Your task to perform on an android device: Go to battery settings Image 0: 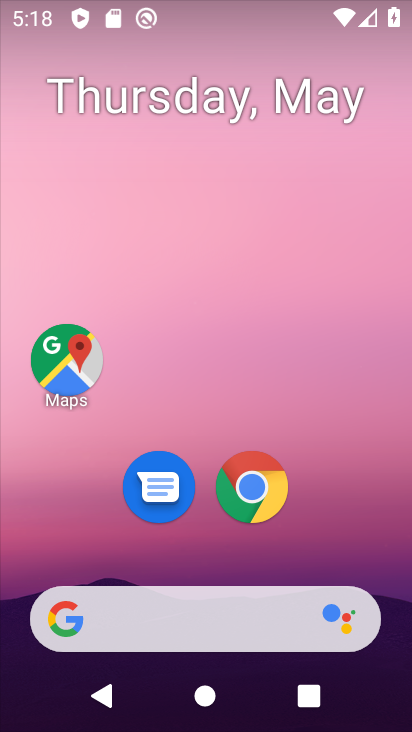
Step 0: drag from (327, 501) to (246, 45)
Your task to perform on an android device: Go to battery settings Image 1: 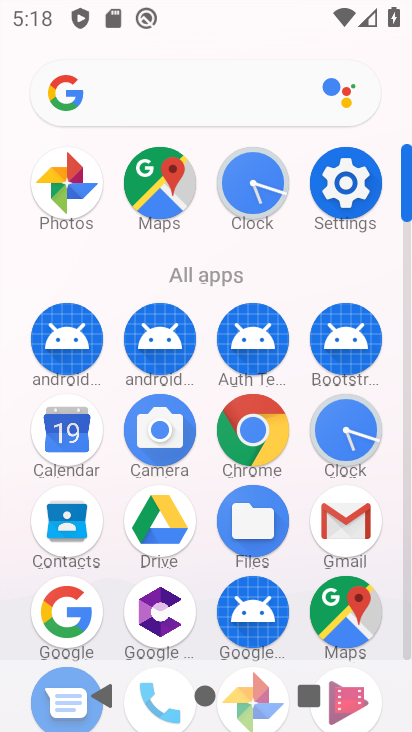
Step 1: click (346, 189)
Your task to perform on an android device: Go to battery settings Image 2: 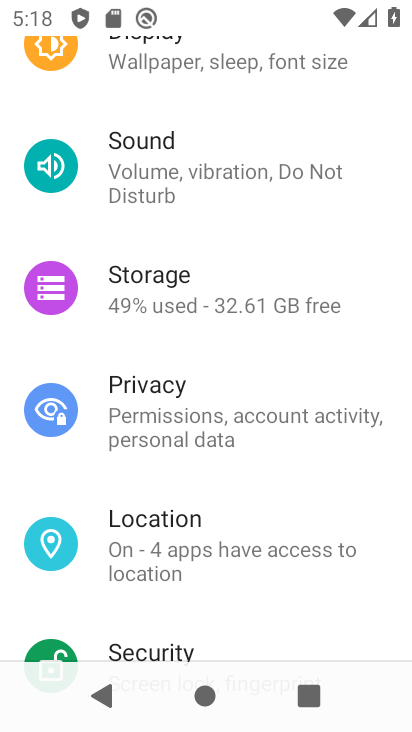
Step 2: drag from (243, 249) to (232, 571)
Your task to perform on an android device: Go to battery settings Image 3: 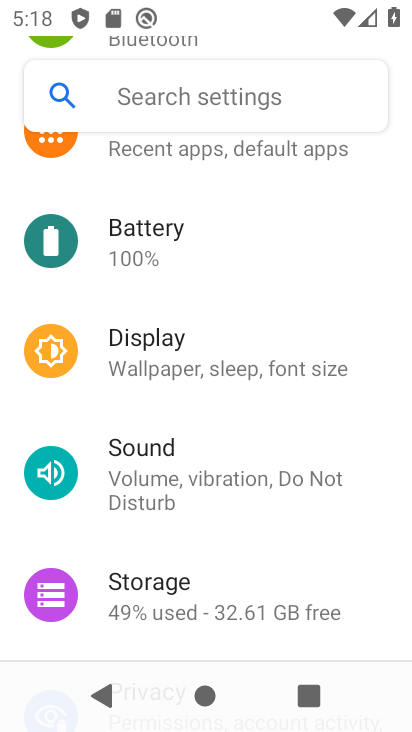
Step 3: click (195, 247)
Your task to perform on an android device: Go to battery settings Image 4: 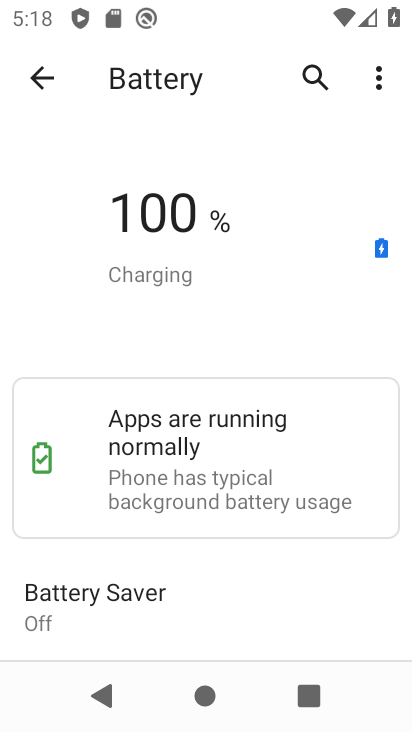
Step 4: task complete